Your task to perform on an android device: change the clock display to digital Image 0: 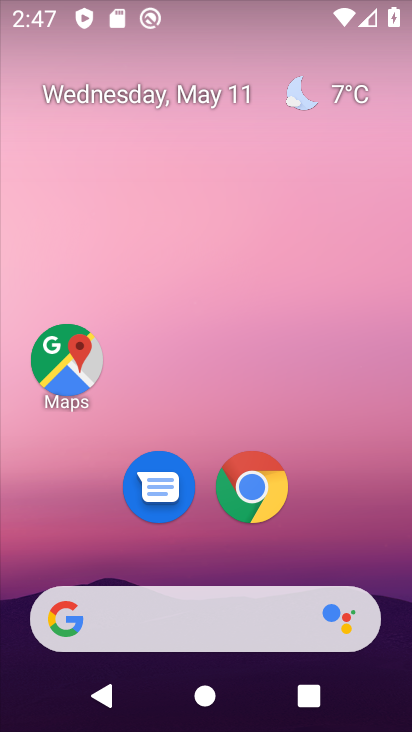
Step 0: drag from (313, 610) to (276, 17)
Your task to perform on an android device: change the clock display to digital Image 1: 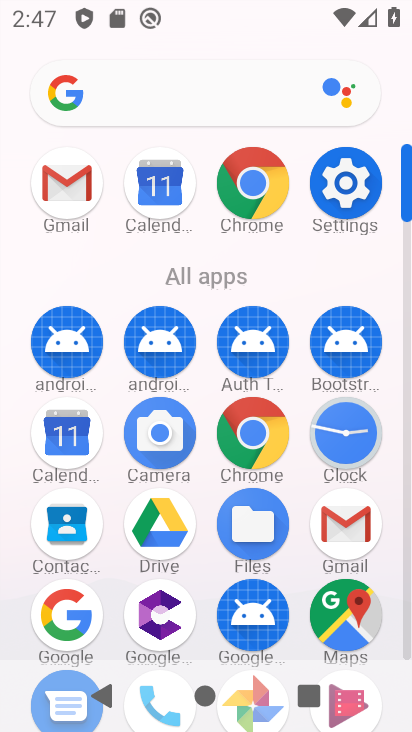
Step 1: click (359, 443)
Your task to perform on an android device: change the clock display to digital Image 2: 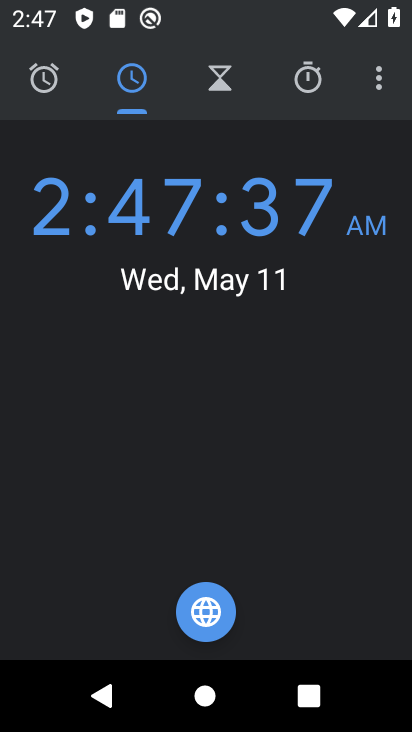
Step 2: click (388, 89)
Your task to perform on an android device: change the clock display to digital Image 3: 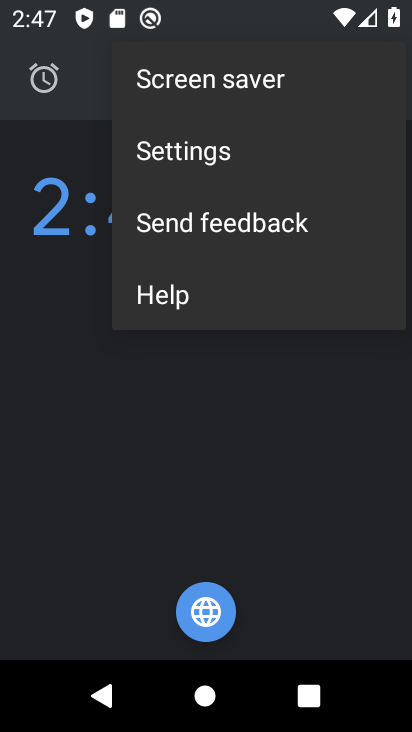
Step 3: click (133, 154)
Your task to perform on an android device: change the clock display to digital Image 4: 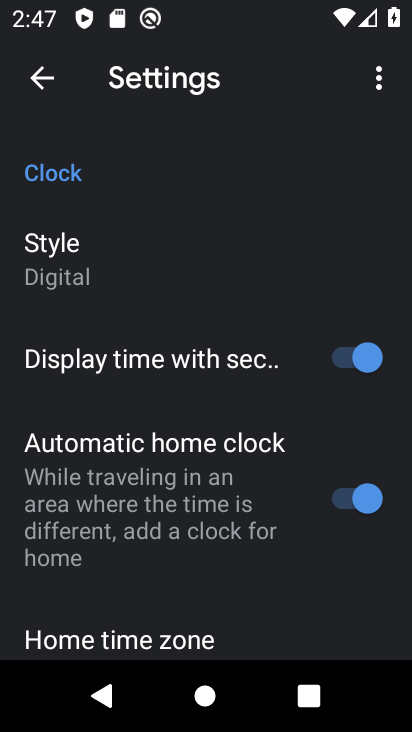
Step 4: task complete